Your task to perform on an android device: Find coffee shops on Maps Image 0: 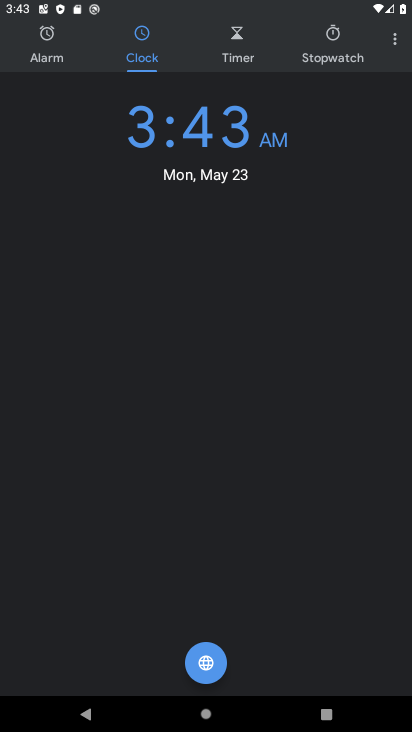
Step 0: press back button
Your task to perform on an android device: Find coffee shops on Maps Image 1: 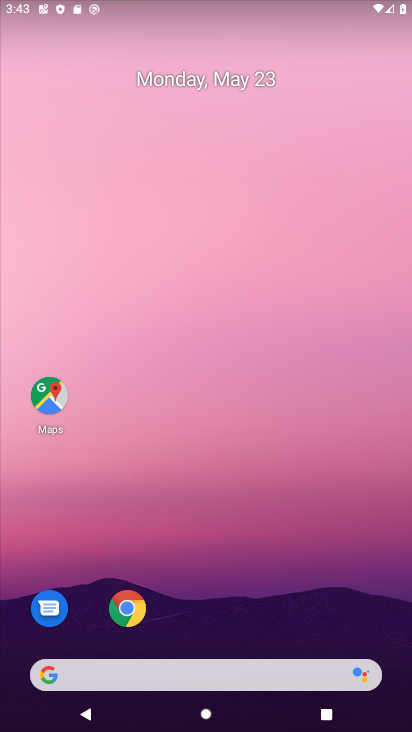
Step 1: click (48, 397)
Your task to perform on an android device: Find coffee shops on Maps Image 2: 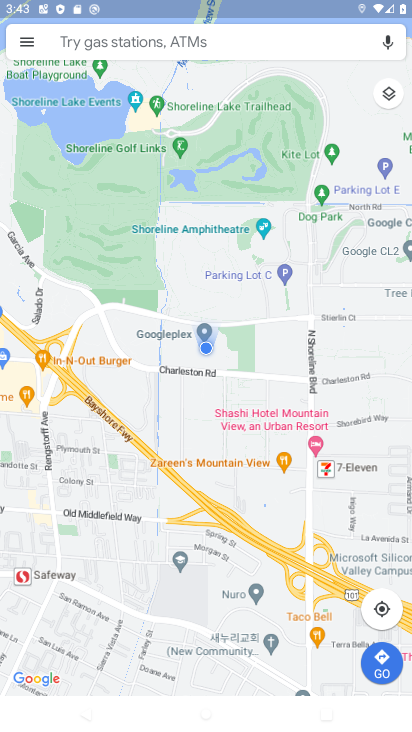
Step 2: click (175, 43)
Your task to perform on an android device: Find coffee shops on Maps Image 3: 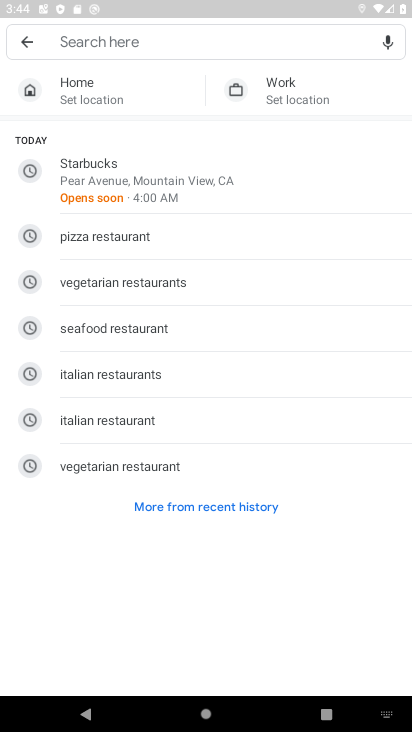
Step 3: type "coffee shops"
Your task to perform on an android device: Find coffee shops on Maps Image 4: 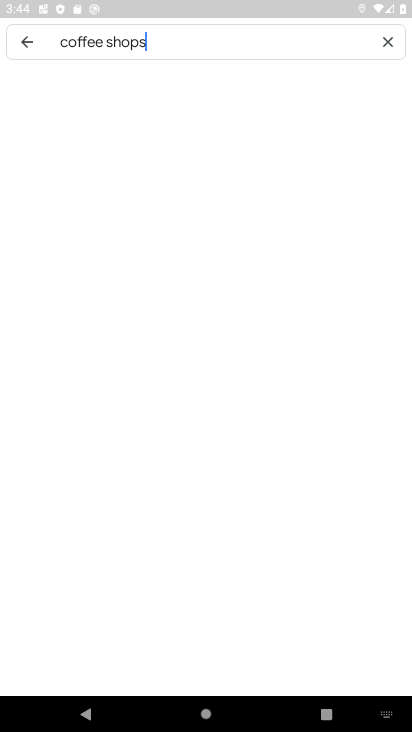
Step 4: type ""
Your task to perform on an android device: Find coffee shops on Maps Image 5: 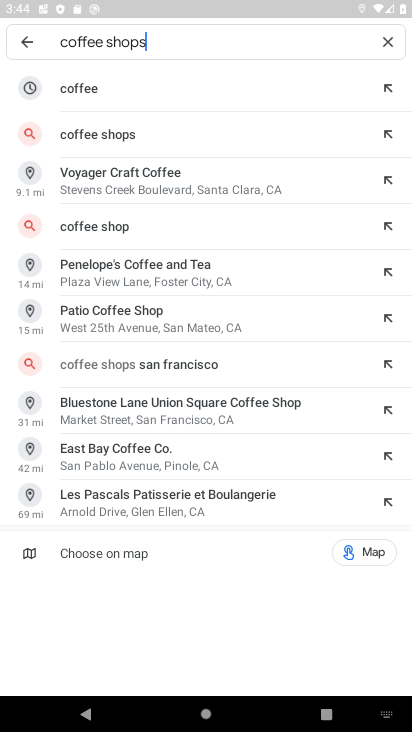
Step 5: click (127, 136)
Your task to perform on an android device: Find coffee shops on Maps Image 6: 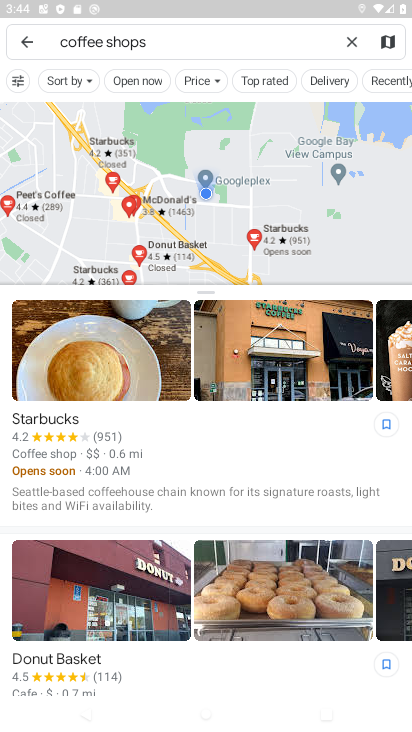
Step 6: task complete